Your task to perform on an android device: turn on location history Image 0: 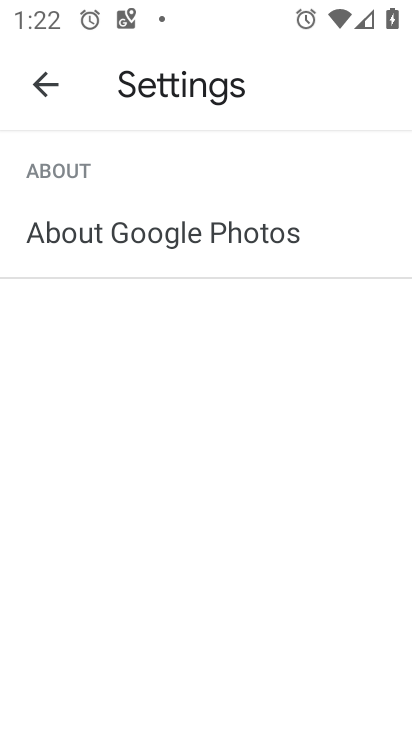
Step 0: press back button
Your task to perform on an android device: turn on location history Image 1: 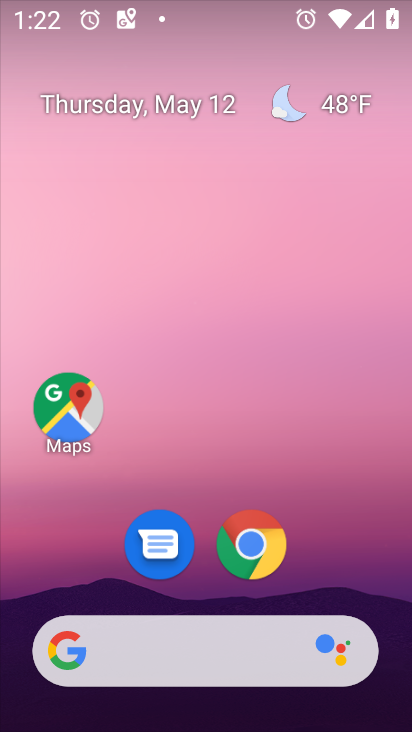
Step 1: drag from (306, 490) to (225, 61)
Your task to perform on an android device: turn on location history Image 2: 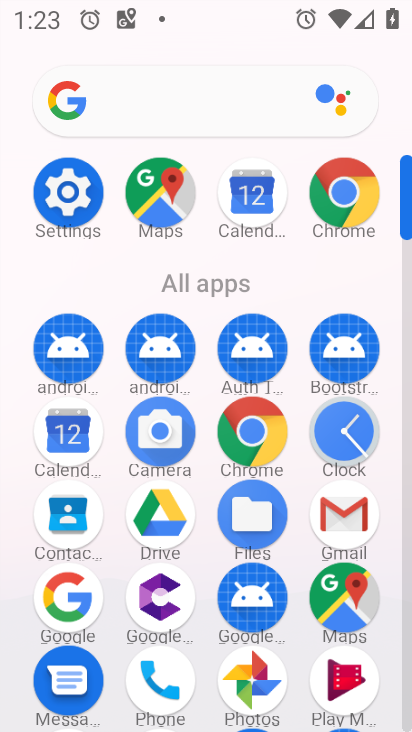
Step 2: click (64, 192)
Your task to perform on an android device: turn on location history Image 3: 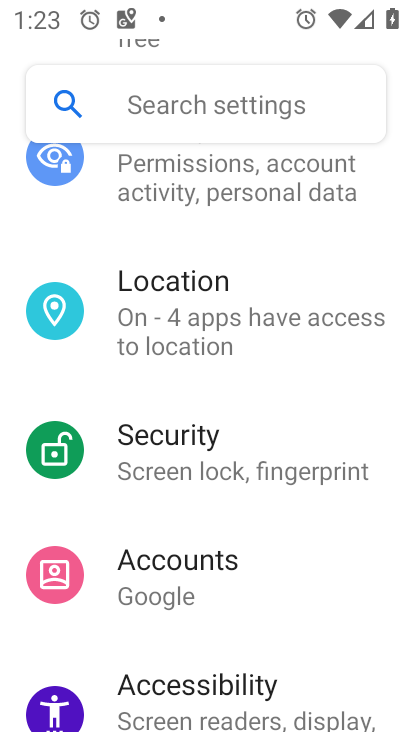
Step 3: drag from (292, 434) to (290, 189)
Your task to perform on an android device: turn on location history Image 4: 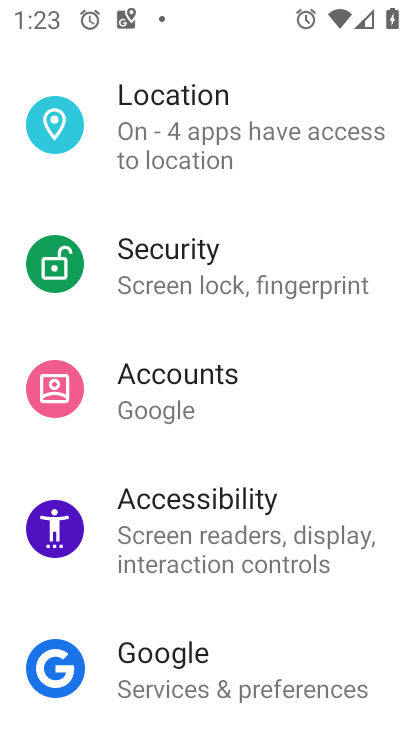
Step 4: click (252, 118)
Your task to perform on an android device: turn on location history Image 5: 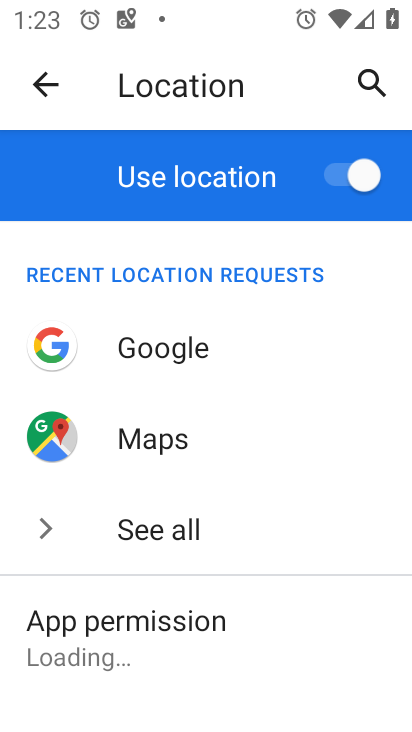
Step 5: drag from (238, 515) to (260, 116)
Your task to perform on an android device: turn on location history Image 6: 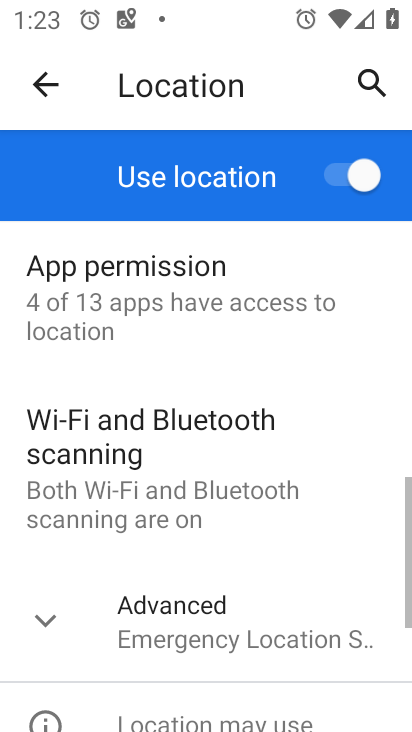
Step 6: drag from (307, 543) to (288, 148)
Your task to perform on an android device: turn on location history Image 7: 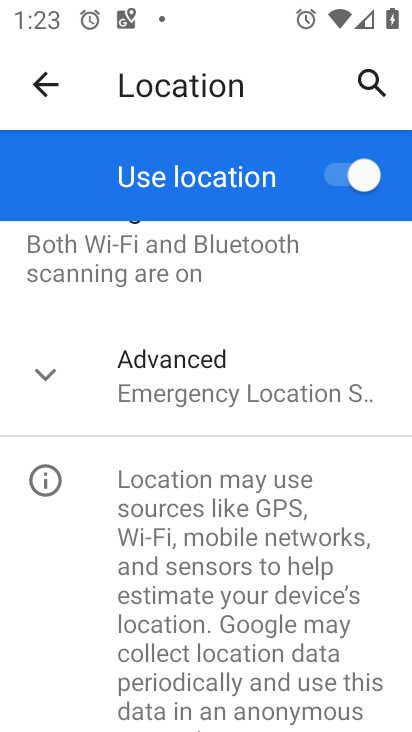
Step 7: click (44, 395)
Your task to perform on an android device: turn on location history Image 8: 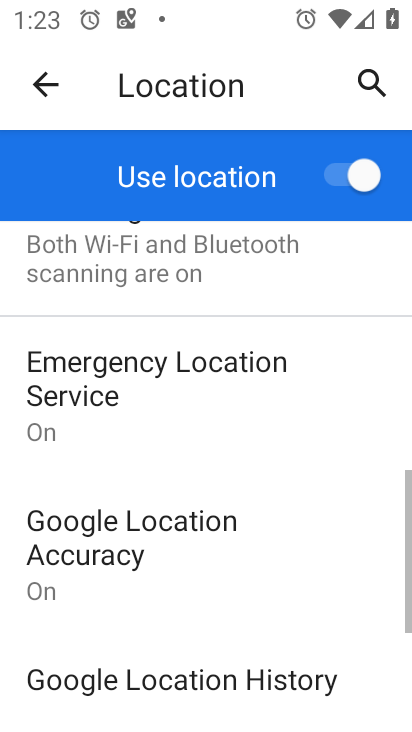
Step 8: task complete